Your task to perform on an android device: Open network settings Image 0: 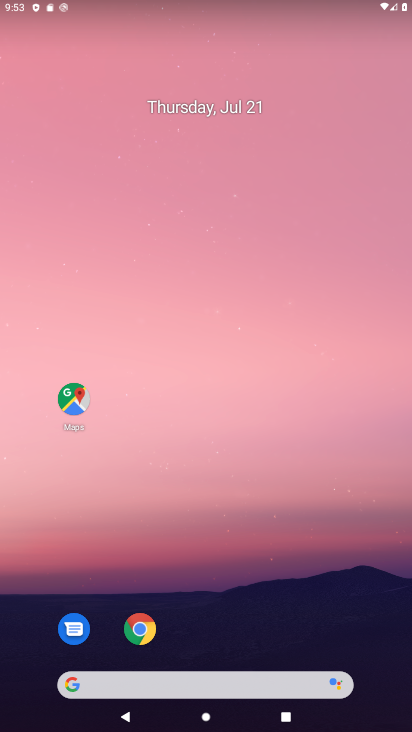
Step 0: drag from (194, 688) to (224, 53)
Your task to perform on an android device: Open network settings Image 1: 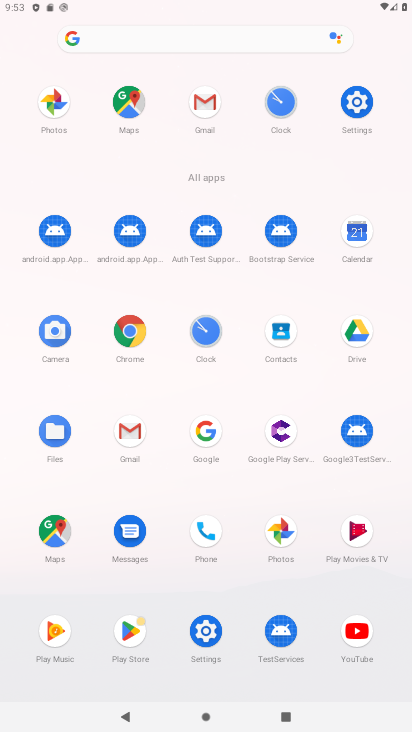
Step 1: click (337, 176)
Your task to perform on an android device: Open network settings Image 2: 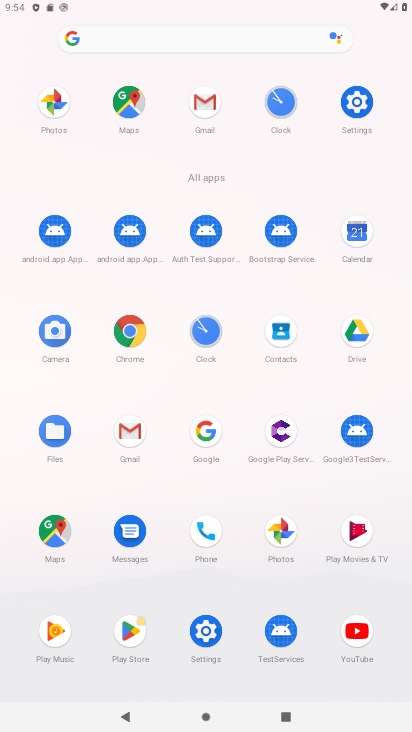
Step 2: click (233, 617)
Your task to perform on an android device: Open network settings Image 3: 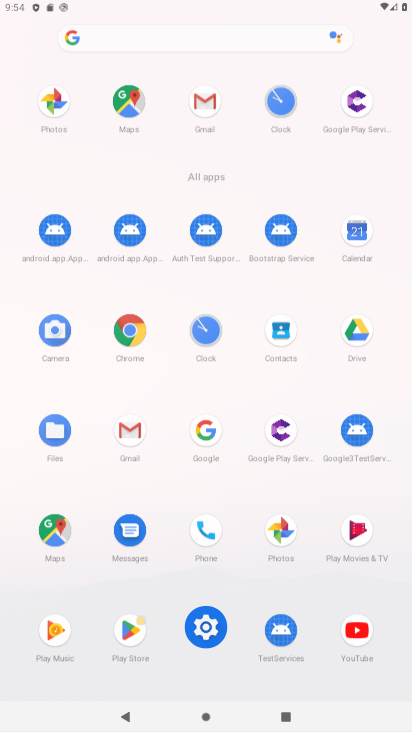
Step 3: click (209, 655)
Your task to perform on an android device: Open network settings Image 4: 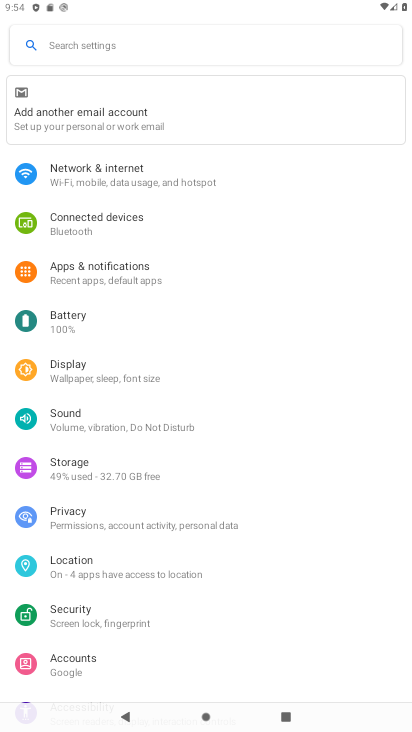
Step 4: click (75, 174)
Your task to perform on an android device: Open network settings Image 5: 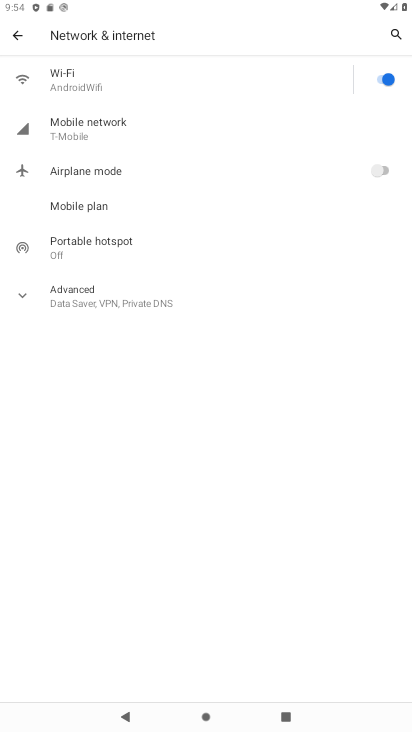
Step 5: task complete